Your task to perform on an android device: refresh tabs in the chrome app Image 0: 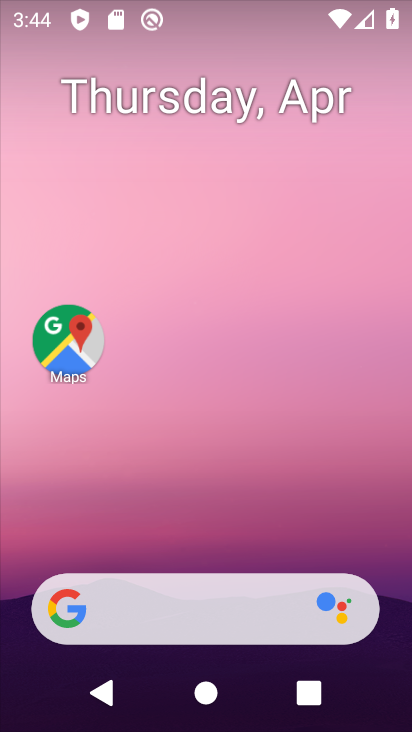
Step 0: drag from (223, 726) to (226, 122)
Your task to perform on an android device: refresh tabs in the chrome app Image 1: 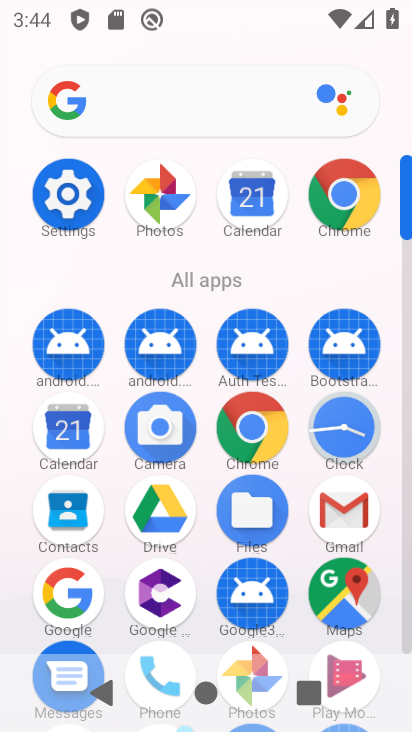
Step 1: click (344, 196)
Your task to perform on an android device: refresh tabs in the chrome app Image 2: 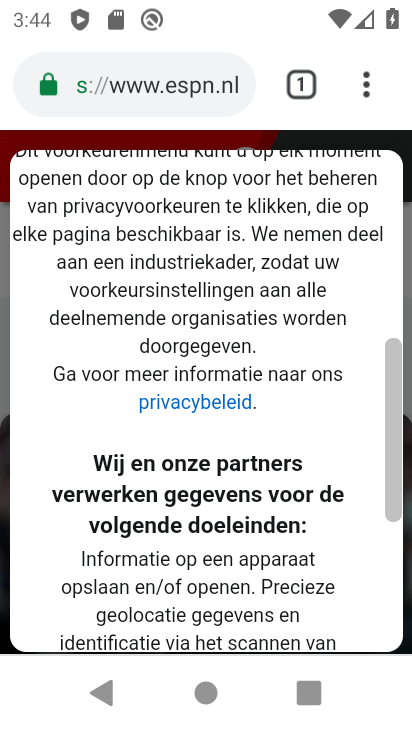
Step 2: click (365, 95)
Your task to perform on an android device: refresh tabs in the chrome app Image 3: 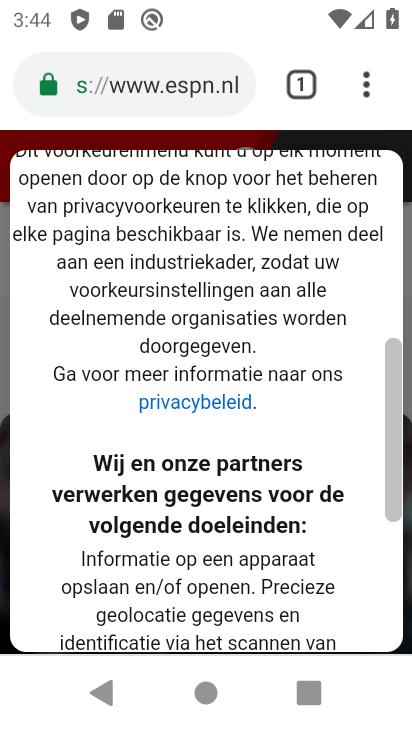
Step 3: task complete